Your task to perform on an android device: change the clock style Image 0: 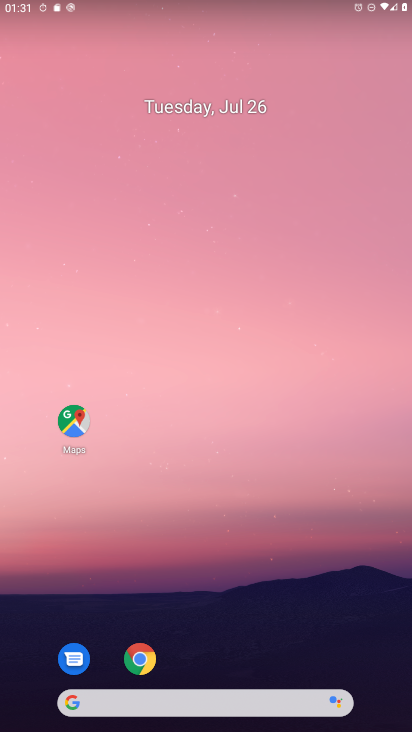
Step 0: drag from (340, 539) to (314, 44)
Your task to perform on an android device: change the clock style Image 1: 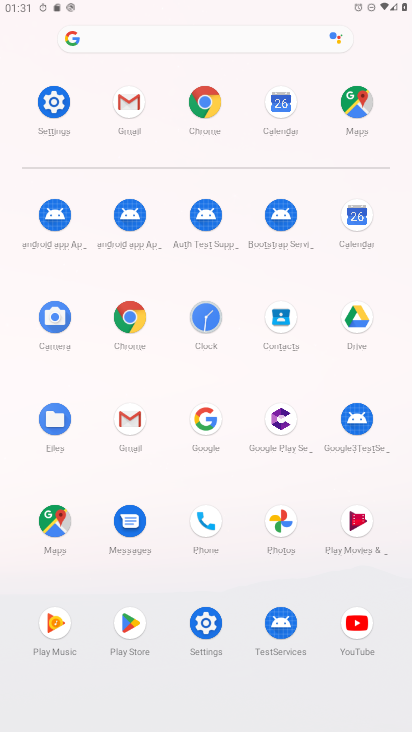
Step 1: click (220, 338)
Your task to perform on an android device: change the clock style Image 2: 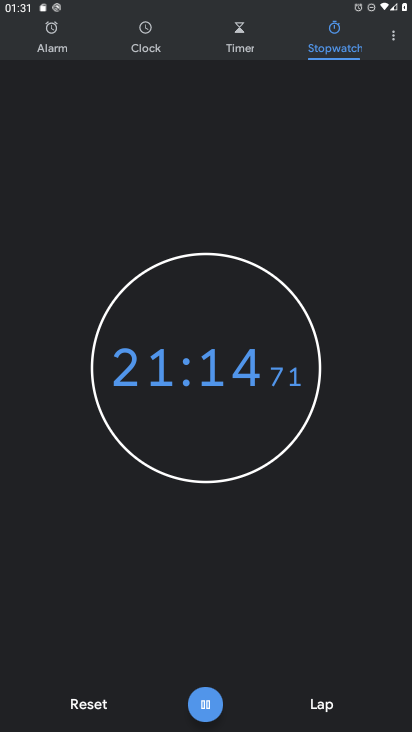
Step 2: click (396, 35)
Your task to perform on an android device: change the clock style Image 3: 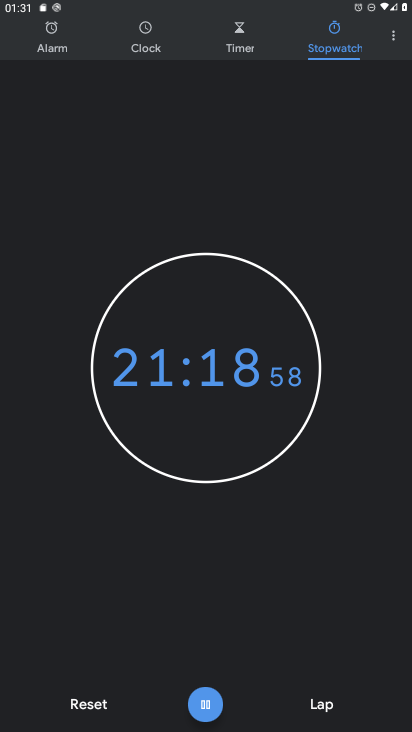
Step 3: click (396, 31)
Your task to perform on an android device: change the clock style Image 4: 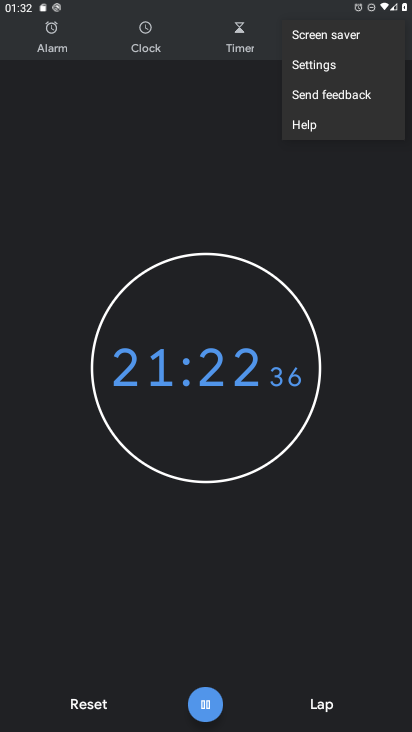
Step 4: click (320, 61)
Your task to perform on an android device: change the clock style Image 5: 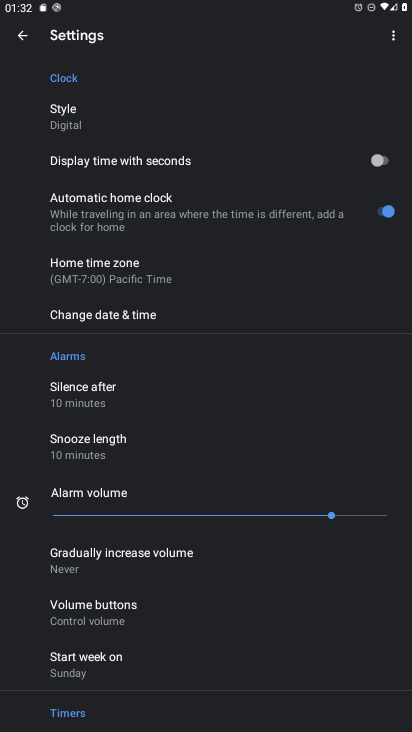
Step 5: click (86, 321)
Your task to perform on an android device: change the clock style Image 6: 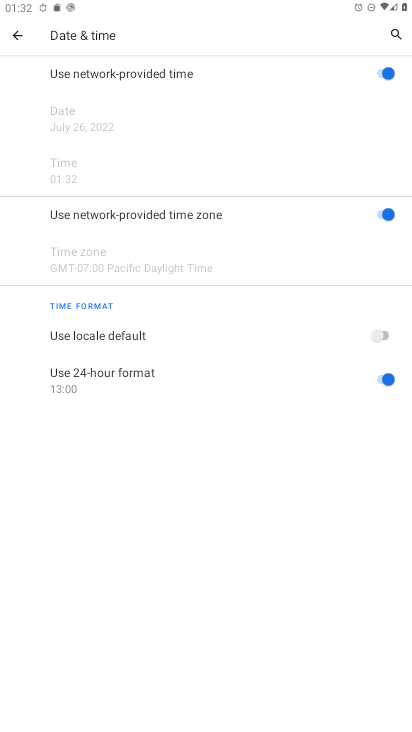
Step 6: click (26, 33)
Your task to perform on an android device: change the clock style Image 7: 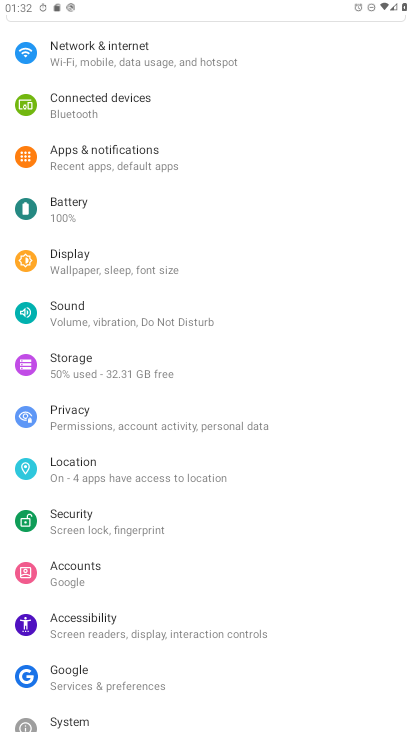
Step 7: press home button
Your task to perform on an android device: change the clock style Image 8: 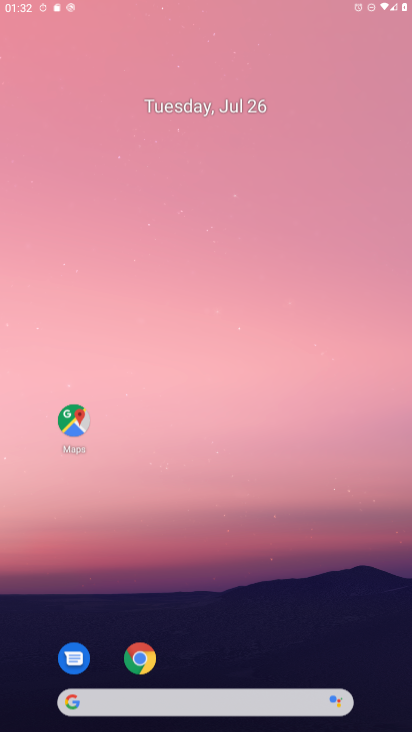
Step 8: click (323, 251)
Your task to perform on an android device: change the clock style Image 9: 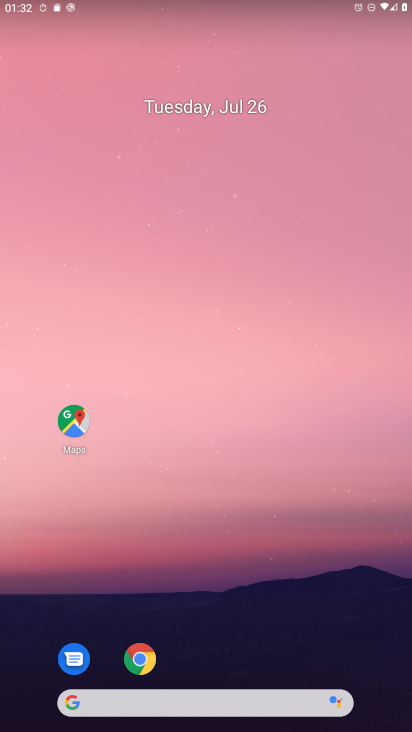
Step 9: drag from (240, 641) to (292, 128)
Your task to perform on an android device: change the clock style Image 10: 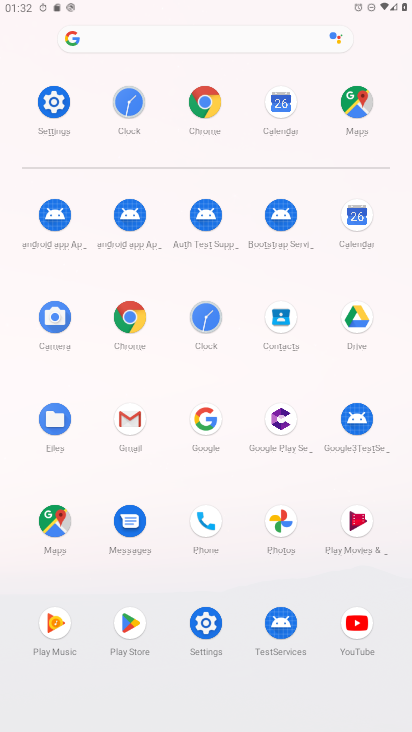
Step 10: click (131, 130)
Your task to perform on an android device: change the clock style Image 11: 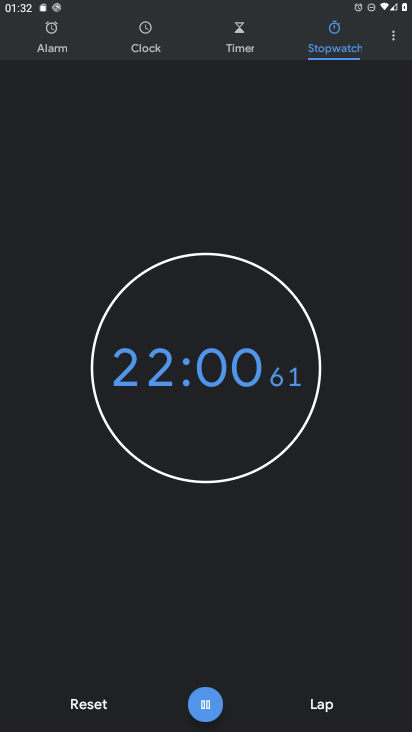
Step 11: click (391, 36)
Your task to perform on an android device: change the clock style Image 12: 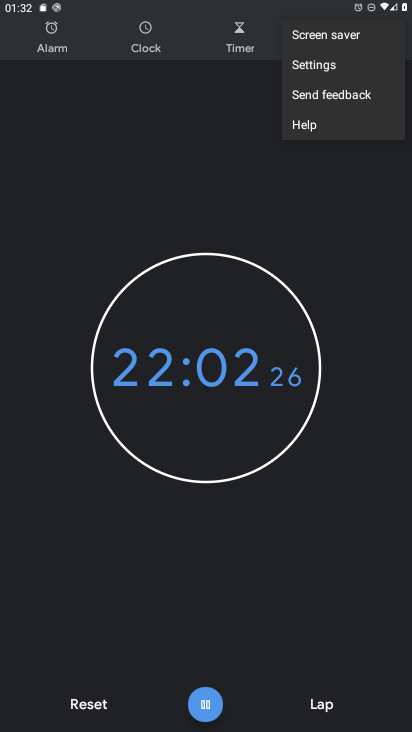
Step 12: click (332, 61)
Your task to perform on an android device: change the clock style Image 13: 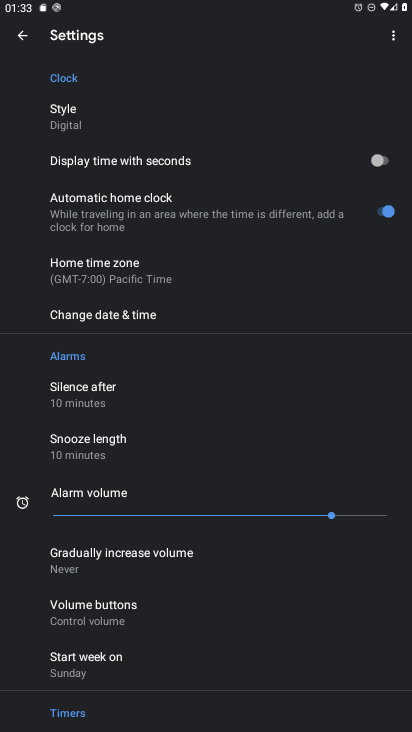
Step 13: click (57, 134)
Your task to perform on an android device: change the clock style Image 14: 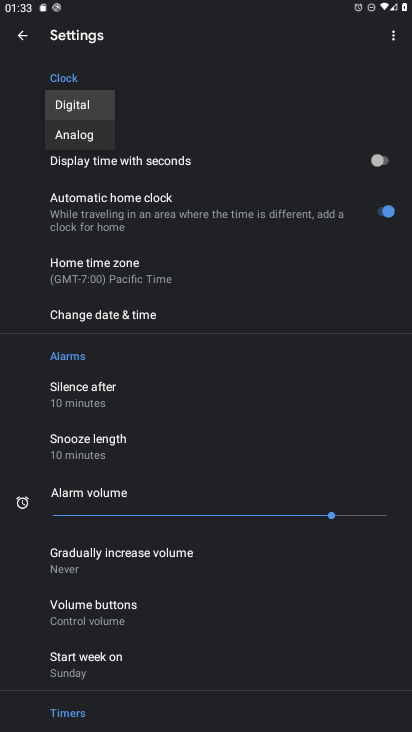
Step 14: click (72, 136)
Your task to perform on an android device: change the clock style Image 15: 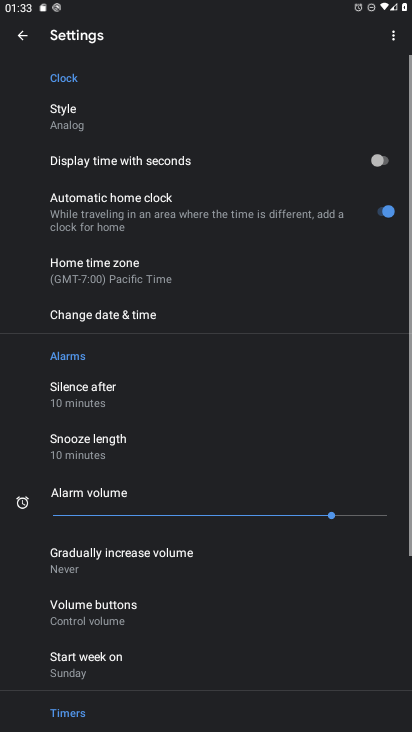
Step 15: task complete